Your task to perform on an android device: toggle improve location accuracy Image 0: 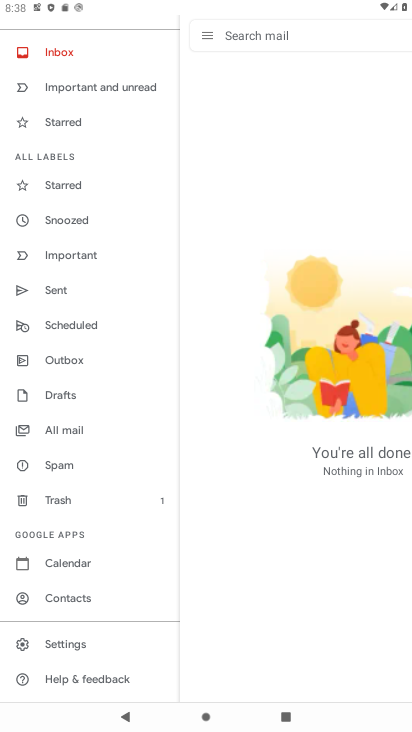
Step 0: press home button
Your task to perform on an android device: toggle improve location accuracy Image 1: 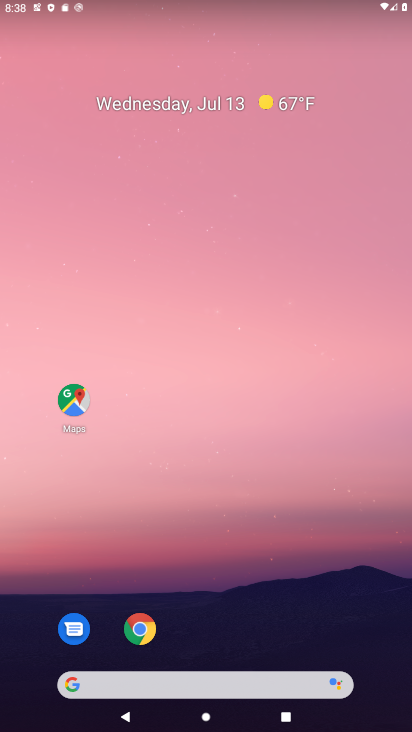
Step 1: drag from (187, 635) to (211, 42)
Your task to perform on an android device: toggle improve location accuracy Image 2: 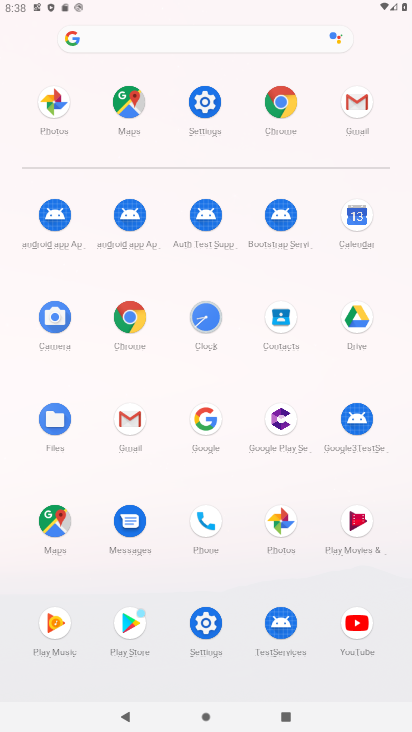
Step 2: click (203, 636)
Your task to perform on an android device: toggle improve location accuracy Image 3: 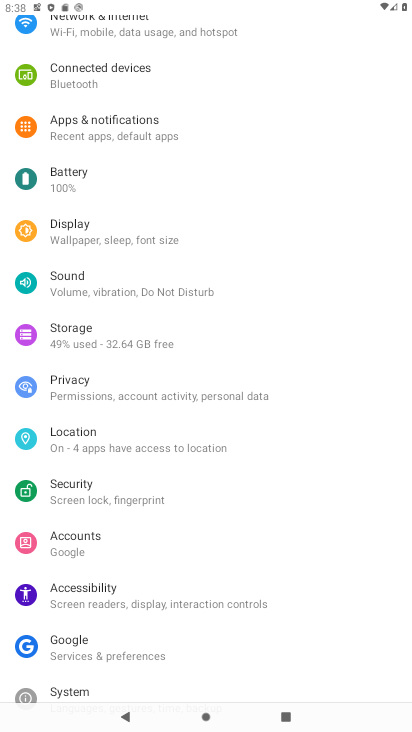
Step 3: click (131, 444)
Your task to perform on an android device: toggle improve location accuracy Image 4: 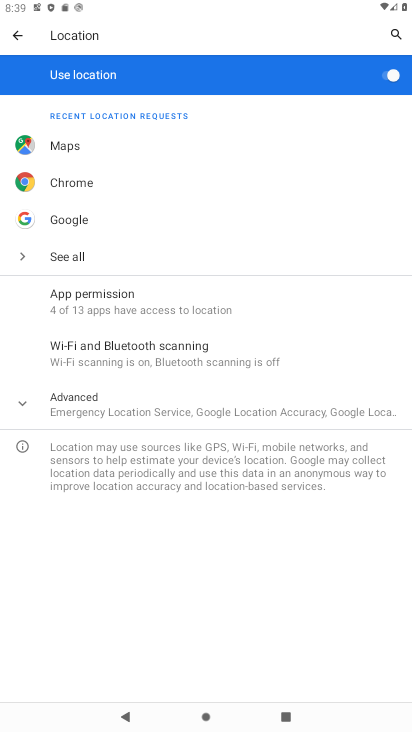
Step 4: click (122, 402)
Your task to perform on an android device: toggle improve location accuracy Image 5: 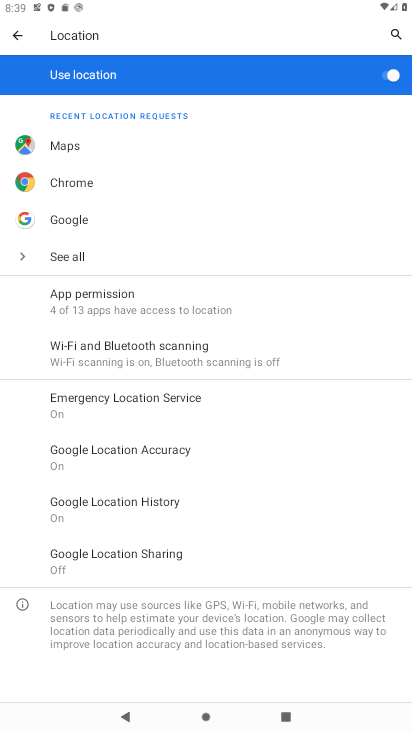
Step 5: click (156, 462)
Your task to perform on an android device: toggle improve location accuracy Image 6: 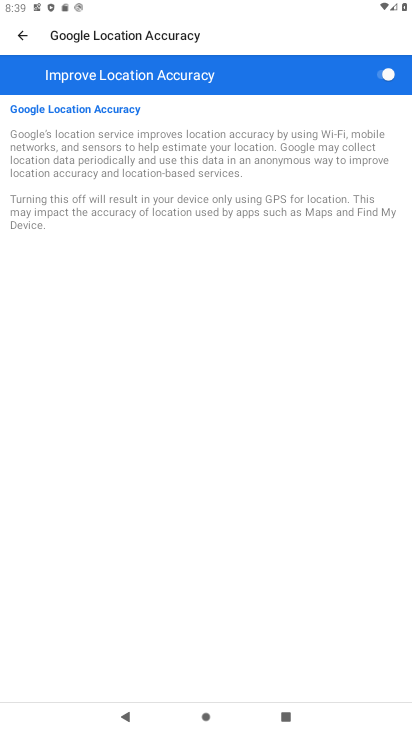
Step 6: click (363, 80)
Your task to perform on an android device: toggle improve location accuracy Image 7: 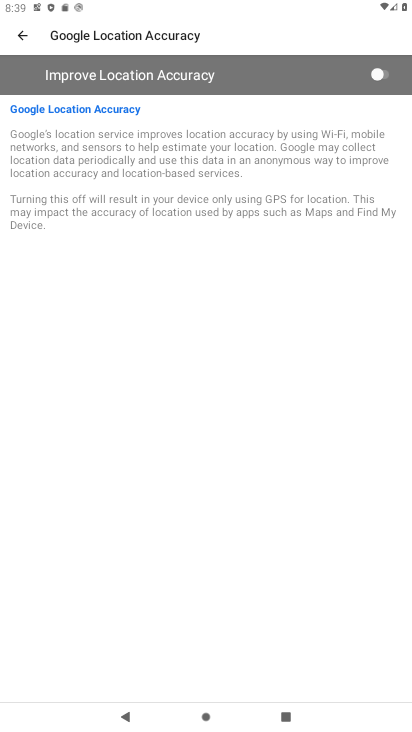
Step 7: task complete